Your task to perform on an android device: Search for Italian restaurants on Maps Image 0: 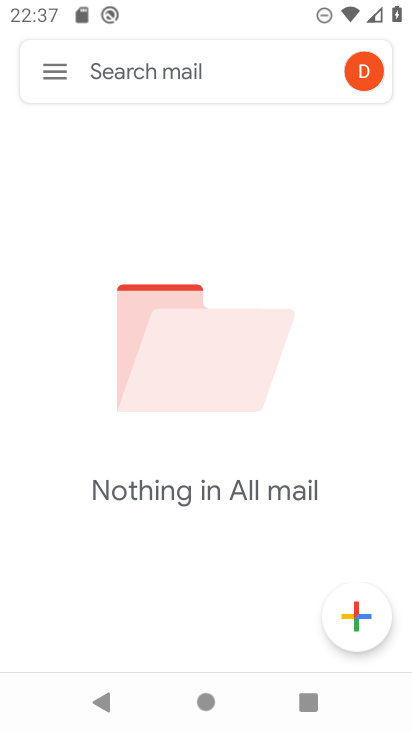
Step 0: press home button
Your task to perform on an android device: Search for Italian restaurants on Maps Image 1: 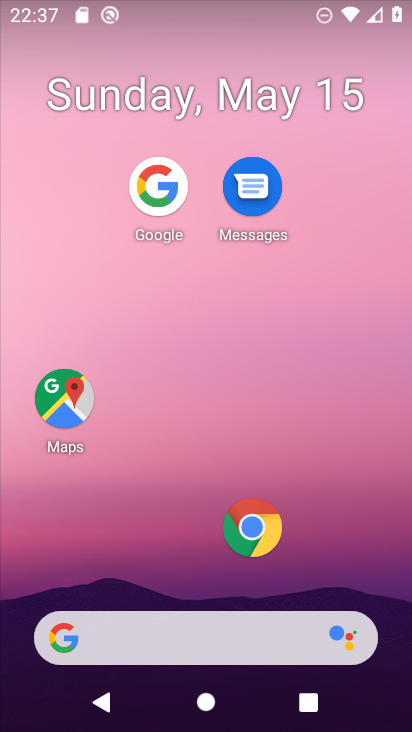
Step 1: click (70, 414)
Your task to perform on an android device: Search for Italian restaurants on Maps Image 2: 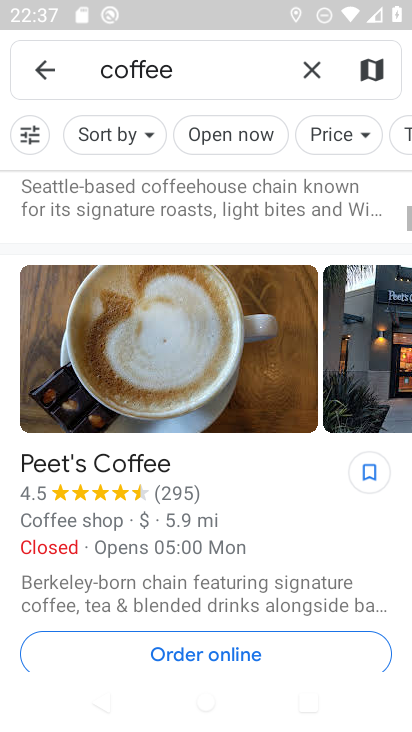
Step 2: click (307, 67)
Your task to perform on an android device: Search for Italian restaurants on Maps Image 3: 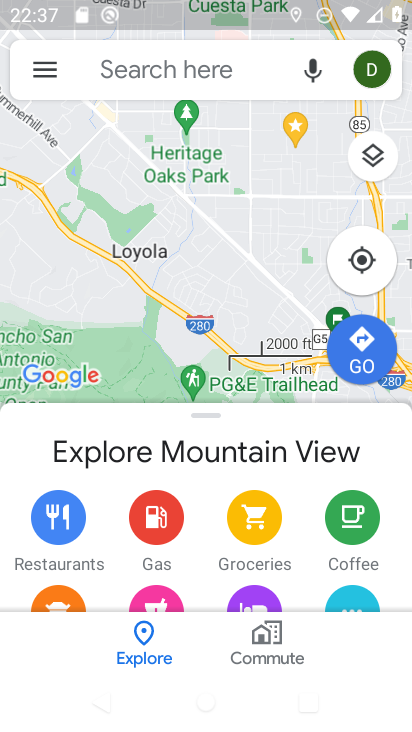
Step 3: click (158, 69)
Your task to perform on an android device: Search for Italian restaurants on Maps Image 4: 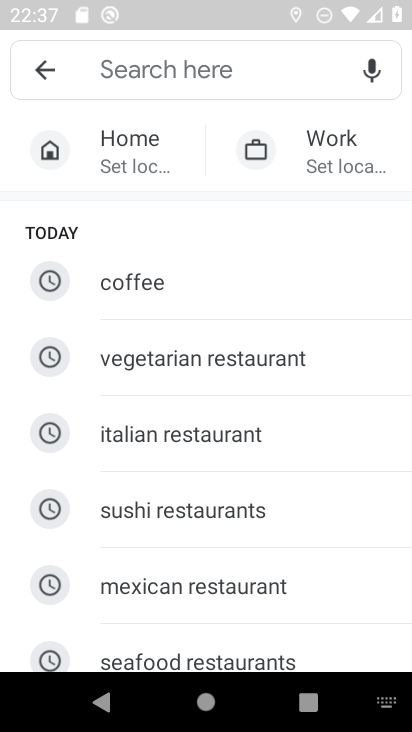
Step 4: click (217, 432)
Your task to perform on an android device: Search for Italian restaurants on Maps Image 5: 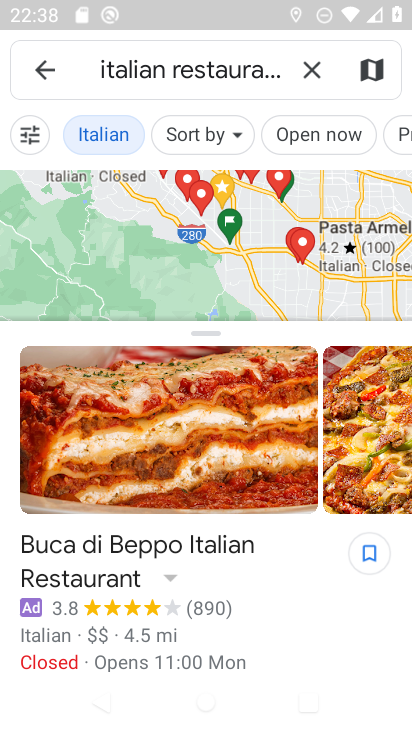
Step 5: task complete